Your task to perform on an android device: Go to Google Image 0: 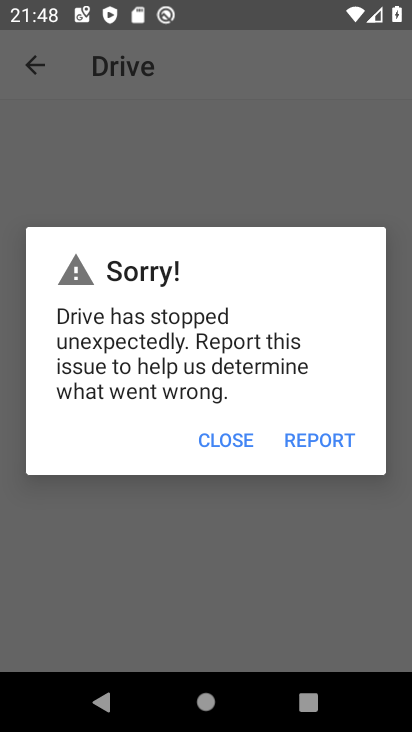
Step 0: press home button
Your task to perform on an android device: Go to Google Image 1: 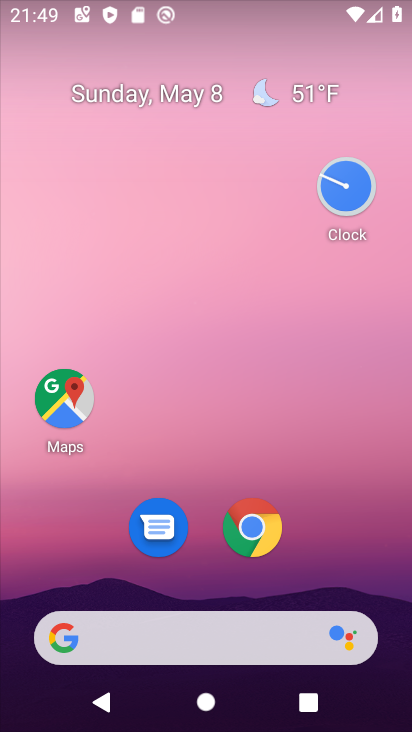
Step 1: drag from (330, 533) to (374, 198)
Your task to perform on an android device: Go to Google Image 2: 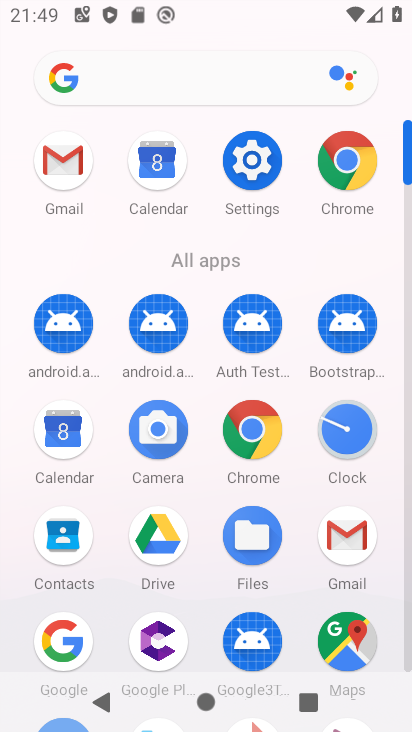
Step 2: click (50, 637)
Your task to perform on an android device: Go to Google Image 3: 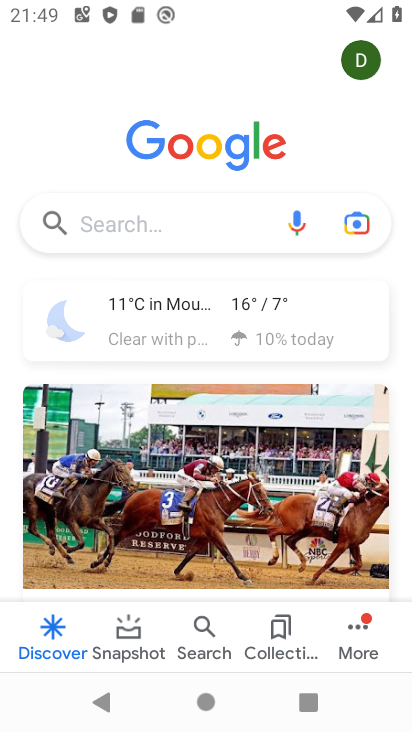
Step 3: task complete